Your task to perform on an android device: Search for seafood restaurants on Google Maps Image 0: 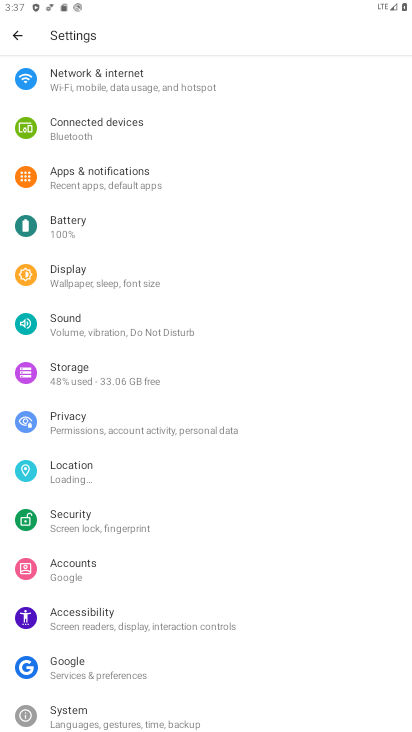
Step 0: press home button
Your task to perform on an android device: Search for seafood restaurants on Google Maps Image 1: 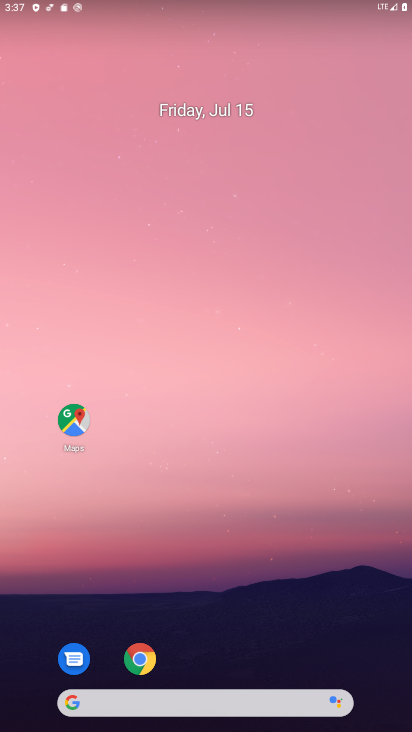
Step 1: drag from (194, 663) to (195, 141)
Your task to perform on an android device: Search for seafood restaurants on Google Maps Image 2: 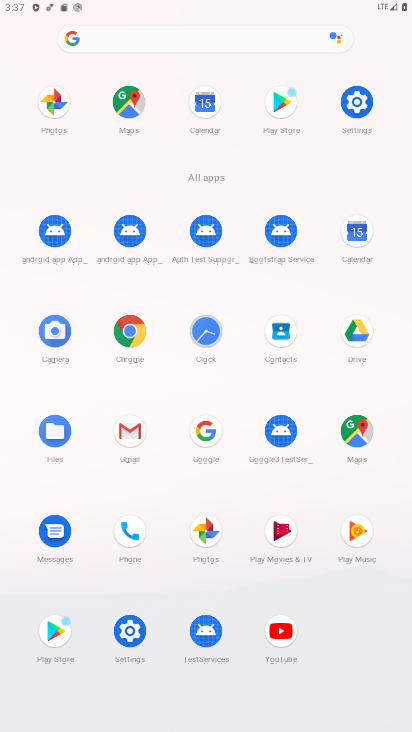
Step 2: click (127, 112)
Your task to perform on an android device: Search for seafood restaurants on Google Maps Image 3: 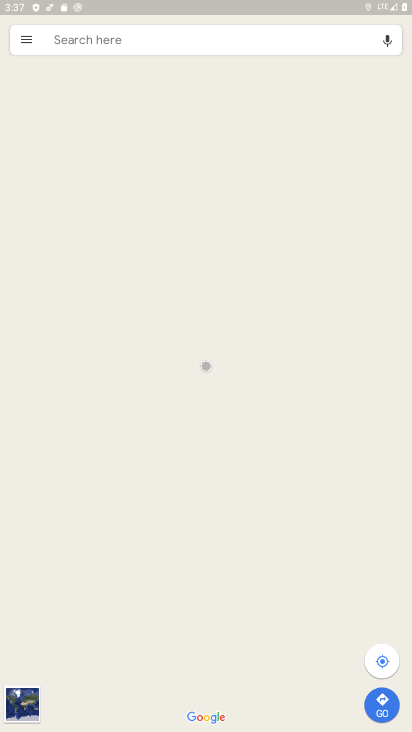
Step 3: click (176, 32)
Your task to perform on an android device: Search for seafood restaurants on Google Maps Image 4: 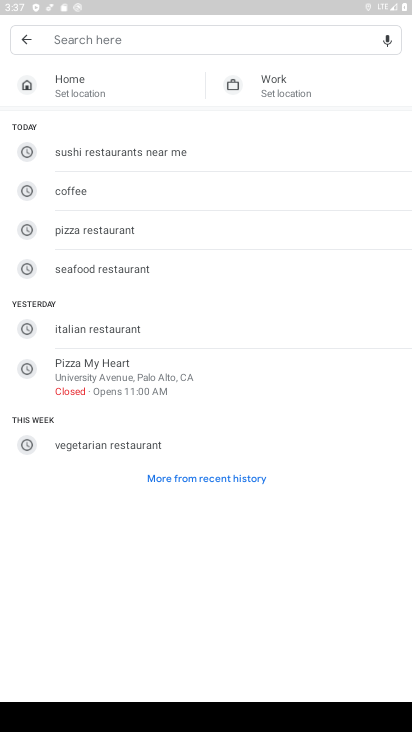
Step 4: click (107, 270)
Your task to perform on an android device: Search for seafood restaurants on Google Maps Image 5: 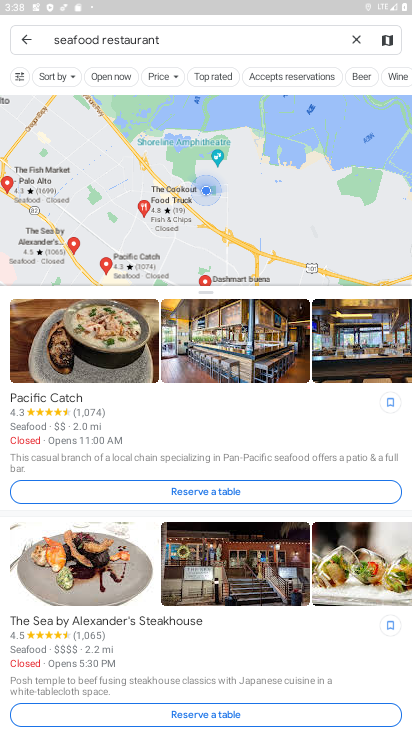
Step 5: task complete